Your task to perform on an android device: open app "Facebook" (install if not already installed) and go to login screen Image 0: 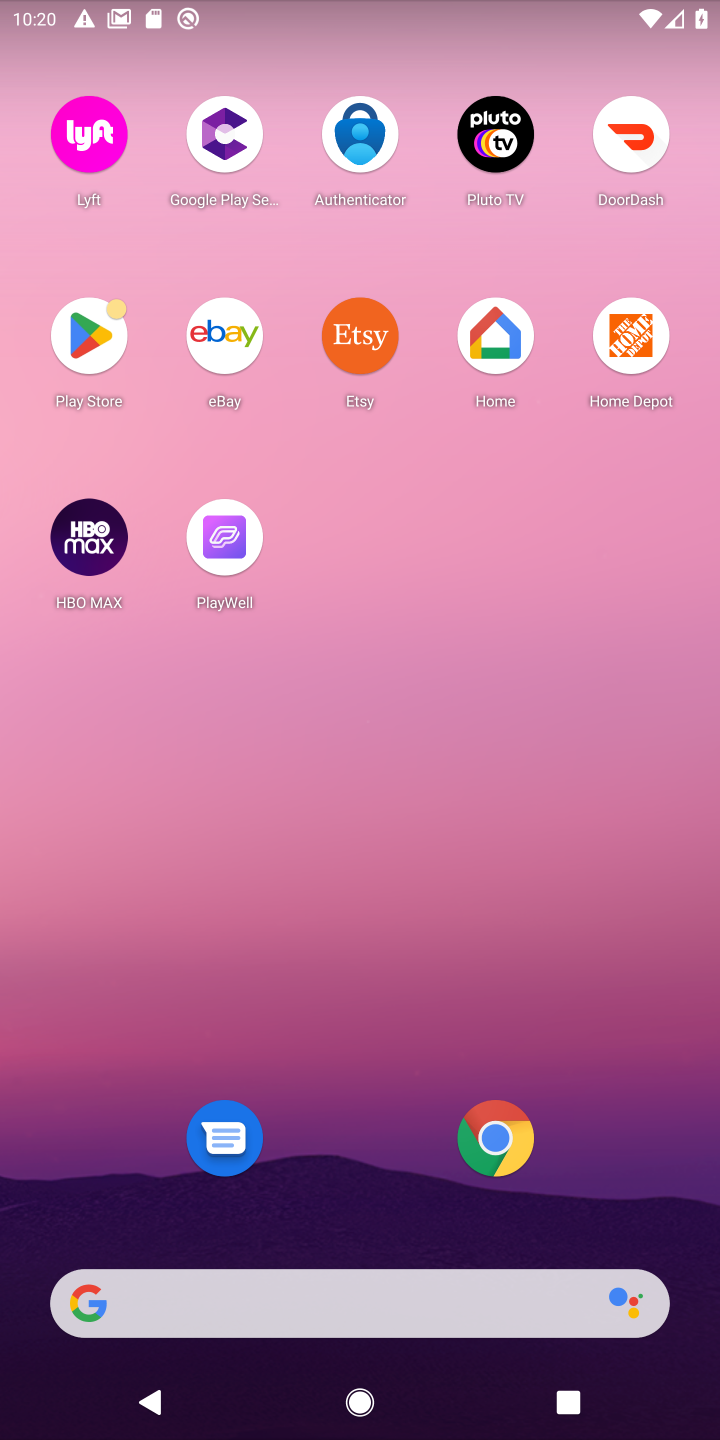
Step 0: click (109, 343)
Your task to perform on an android device: open app "Facebook" (install if not already installed) and go to login screen Image 1: 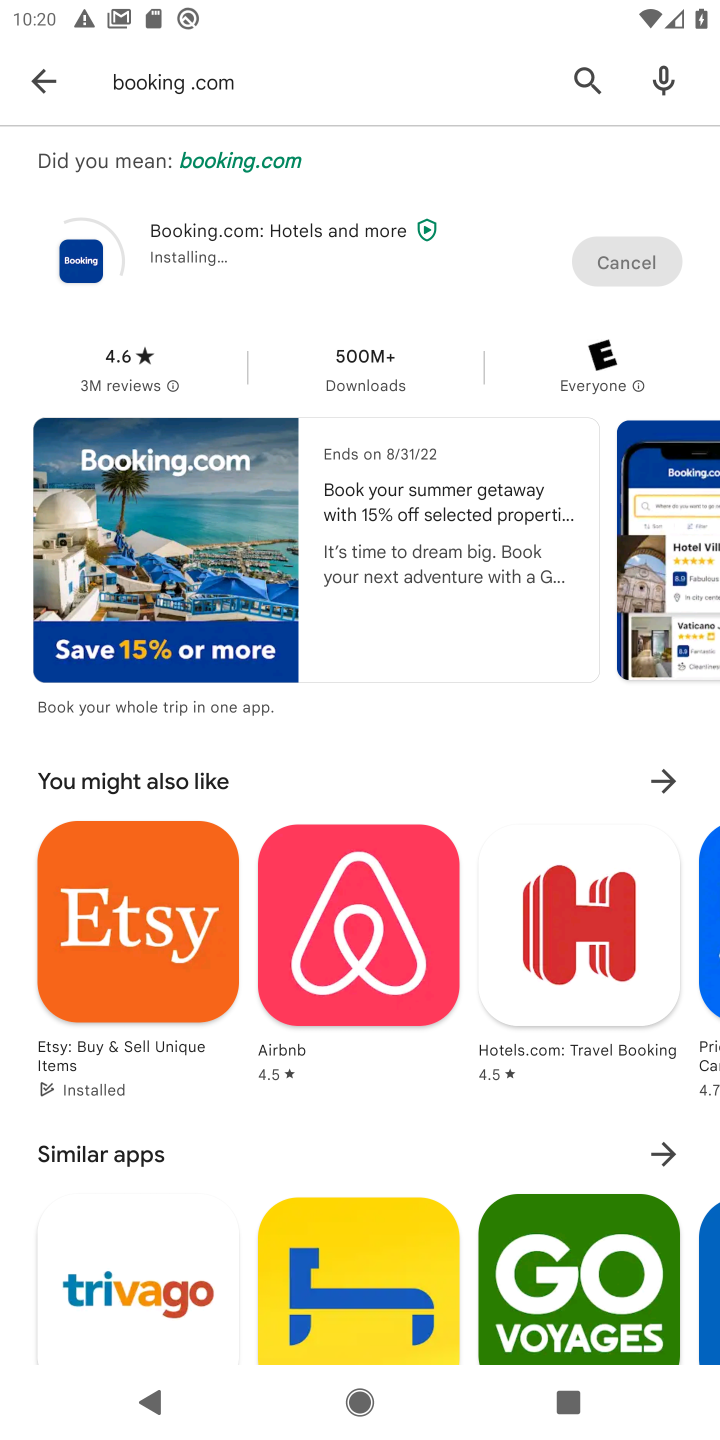
Step 1: click (45, 74)
Your task to perform on an android device: open app "Facebook" (install if not already installed) and go to login screen Image 2: 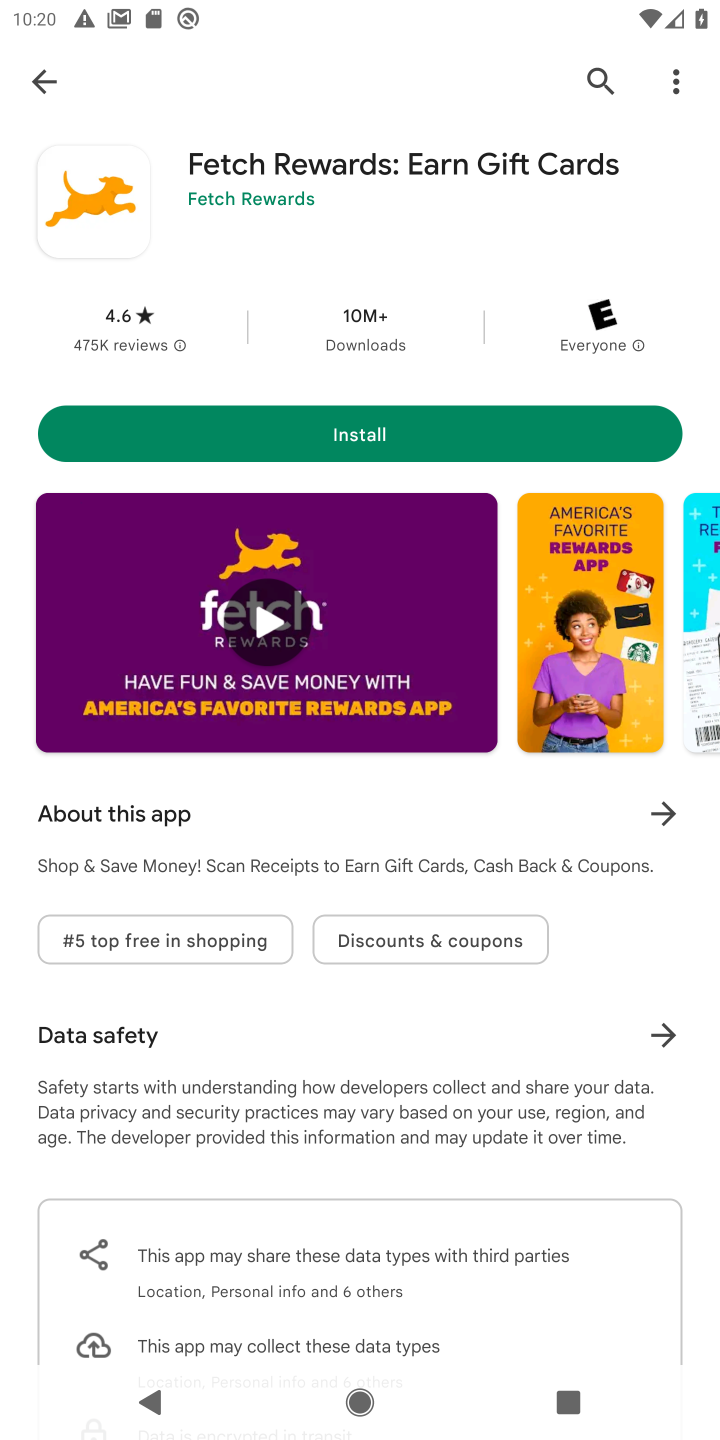
Step 2: click (602, 81)
Your task to perform on an android device: open app "Facebook" (install if not already installed) and go to login screen Image 3: 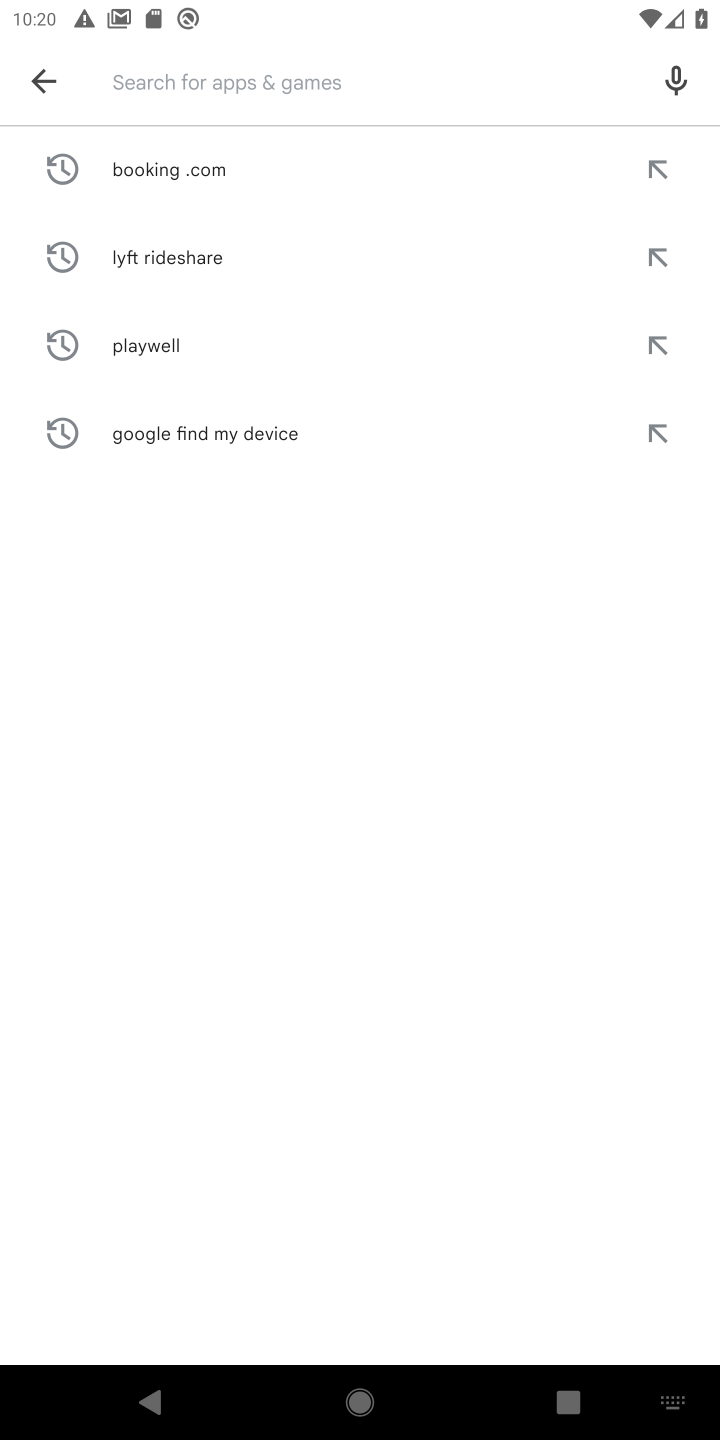
Step 3: type "fb"
Your task to perform on an android device: open app "Facebook" (install if not already installed) and go to login screen Image 4: 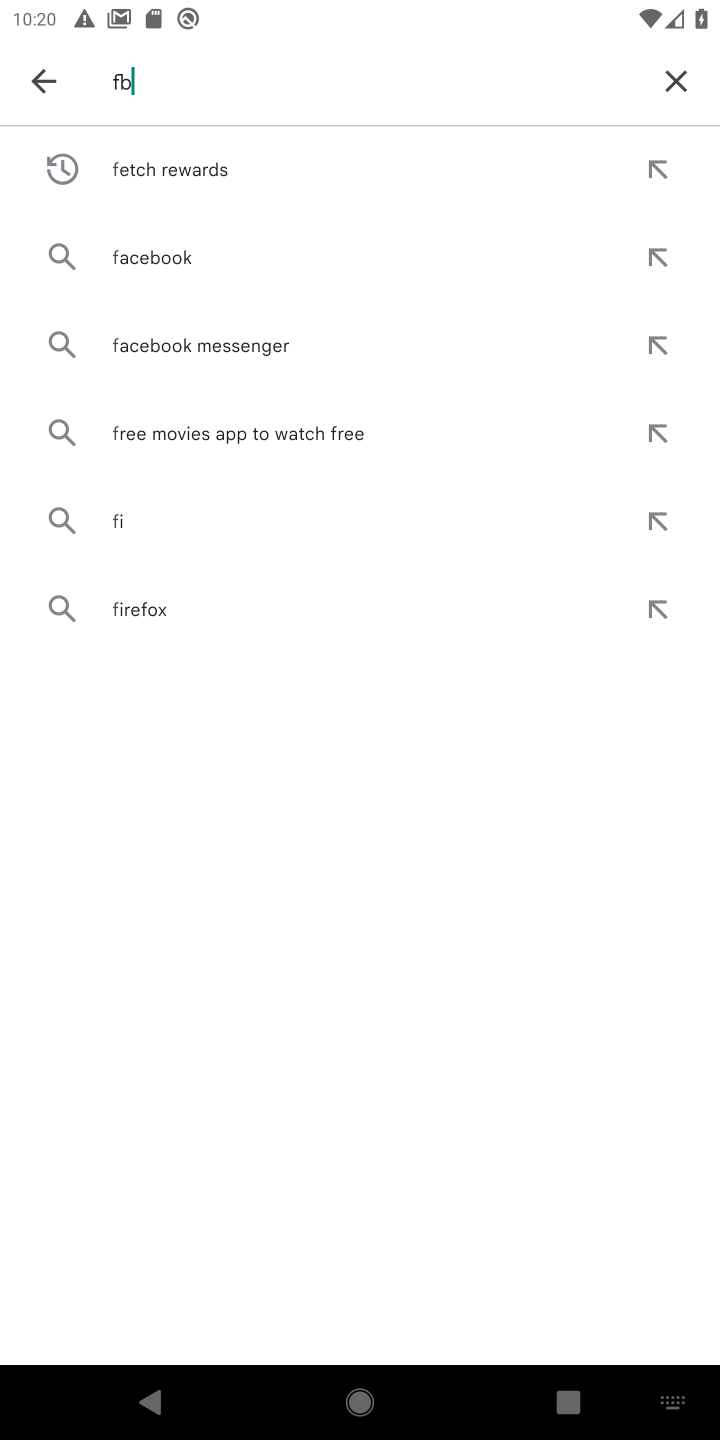
Step 4: type ""
Your task to perform on an android device: open app "Facebook" (install if not already installed) and go to login screen Image 5: 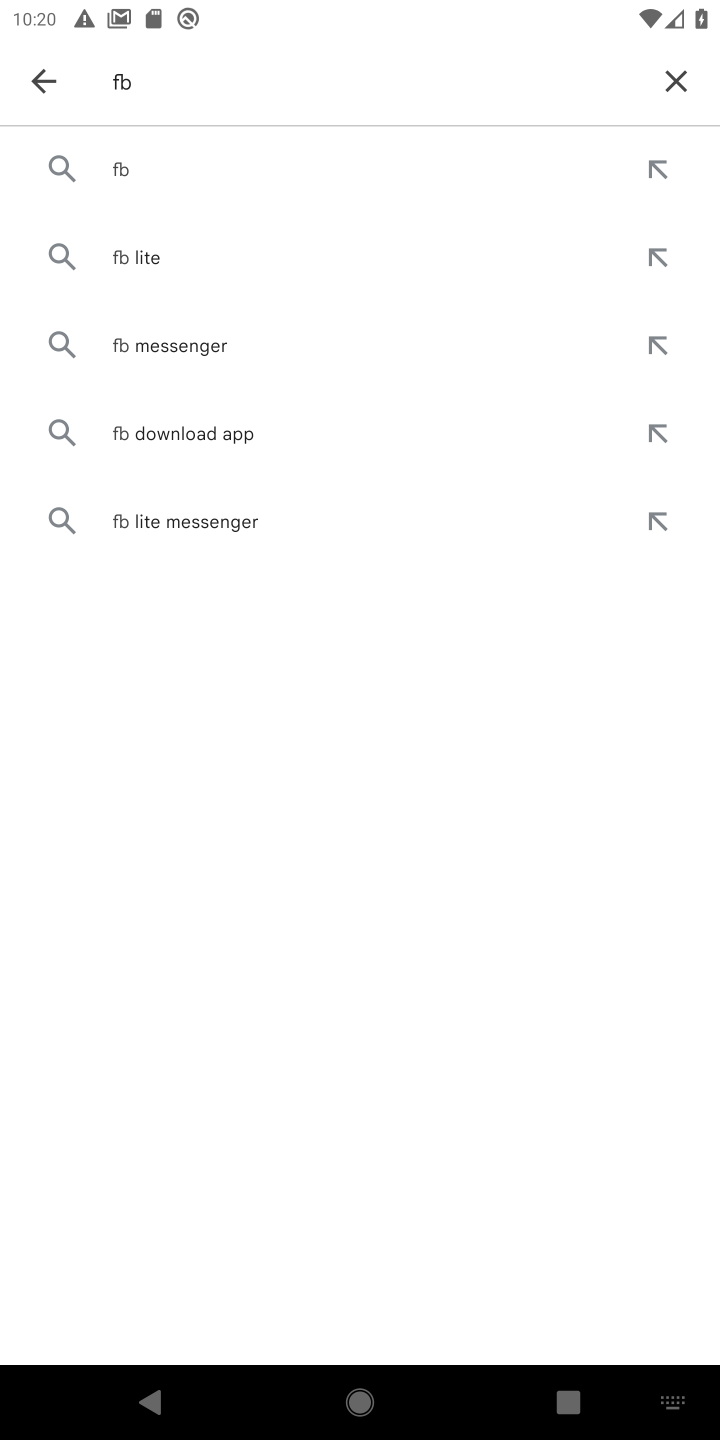
Step 5: click (121, 169)
Your task to perform on an android device: open app "Facebook" (install if not already installed) and go to login screen Image 6: 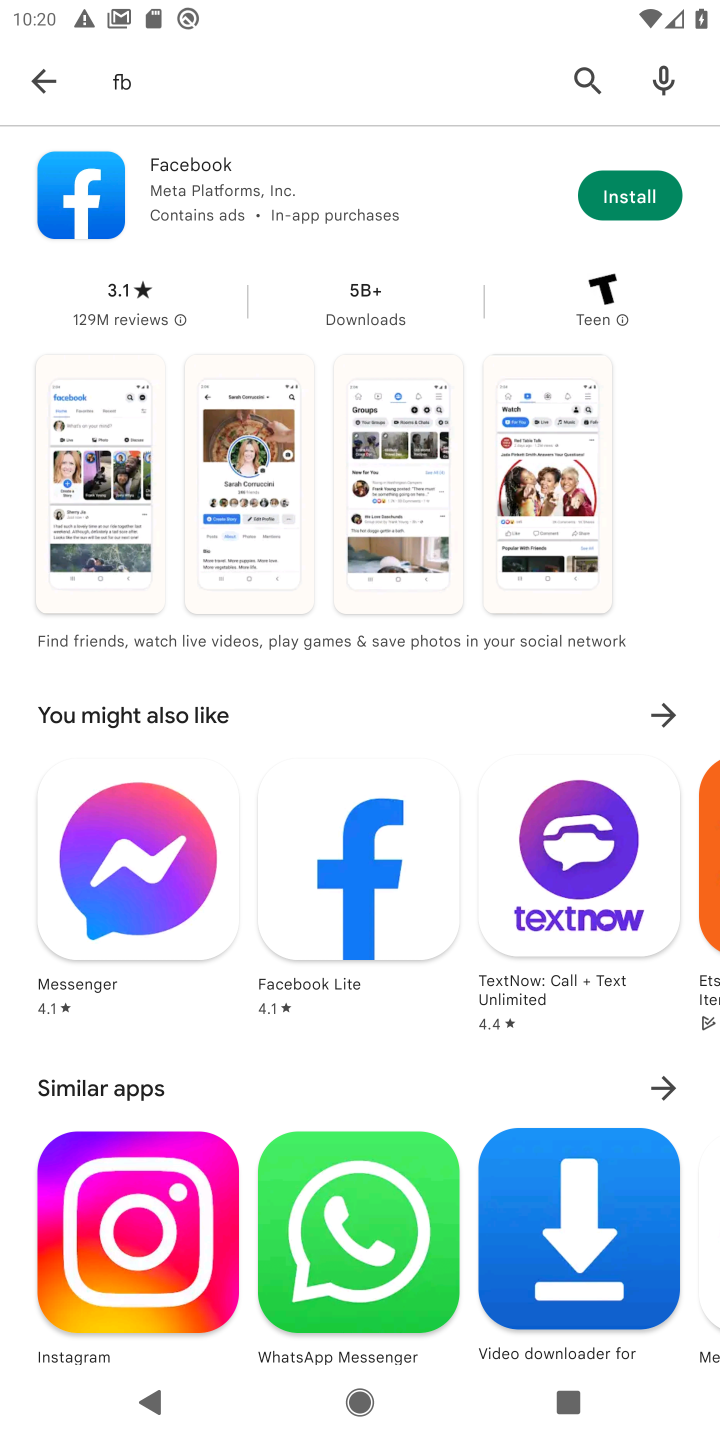
Step 6: click (635, 194)
Your task to perform on an android device: open app "Facebook" (install if not already installed) and go to login screen Image 7: 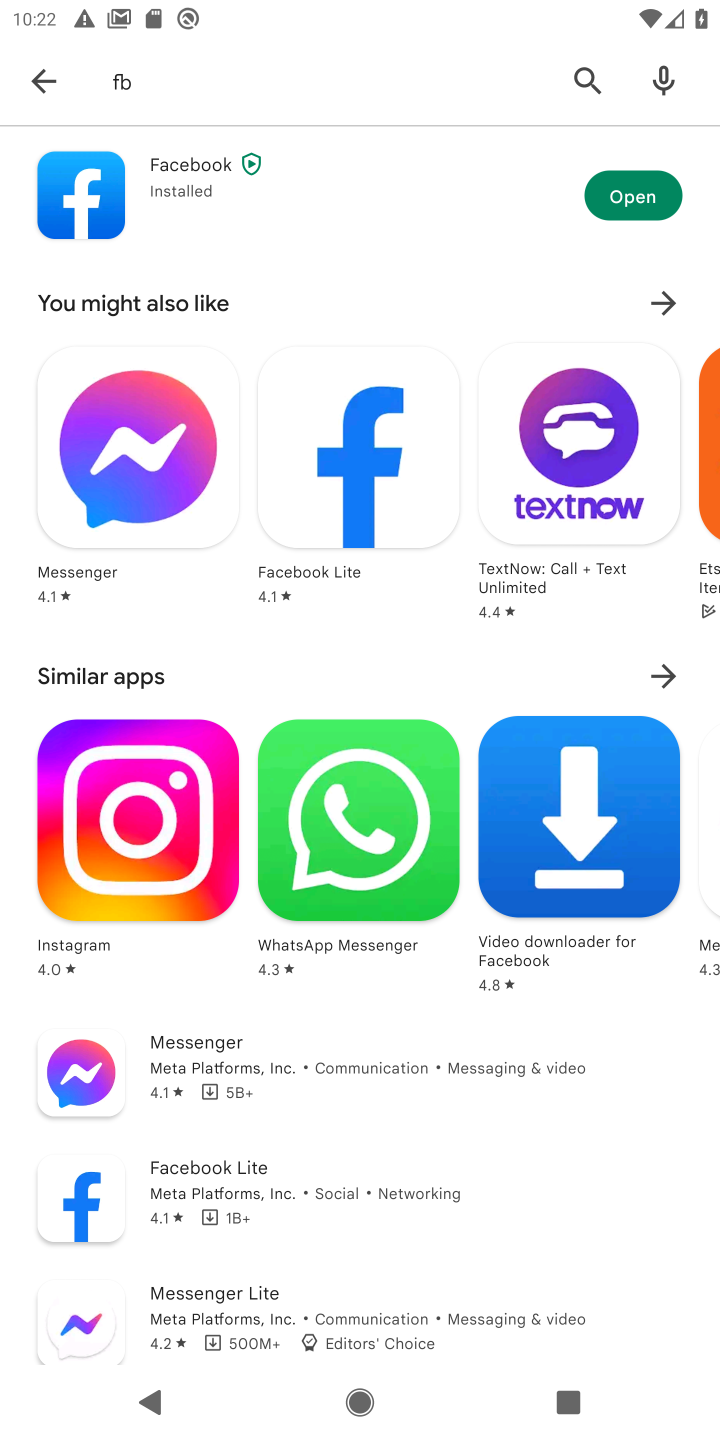
Step 7: click (667, 179)
Your task to perform on an android device: open app "Facebook" (install if not already installed) and go to login screen Image 8: 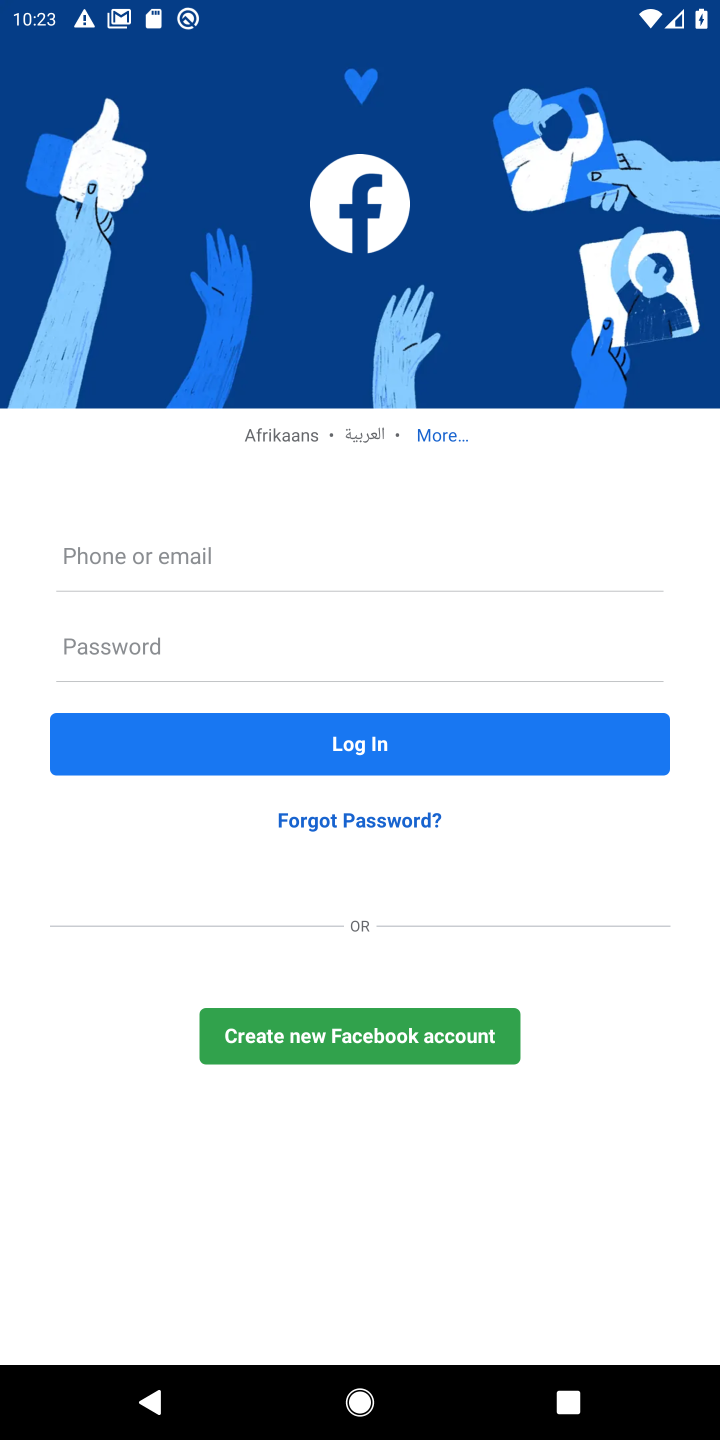
Step 8: task complete